Your task to perform on an android device: open a new tab in the chrome app Image 0: 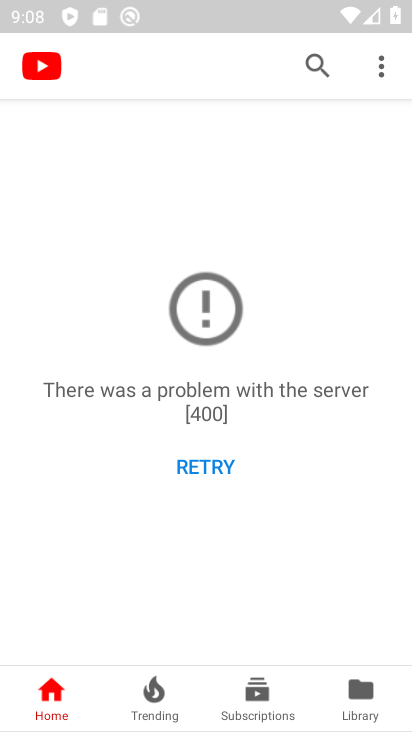
Step 0: press home button
Your task to perform on an android device: open a new tab in the chrome app Image 1: 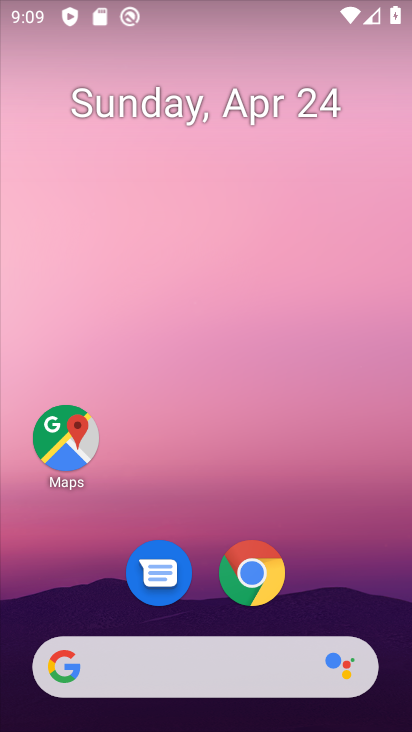
Step 1: drag from (264, 494) to (247, 113)
Your task to perform on an android device: open a new tab in the chrome app Image 2: 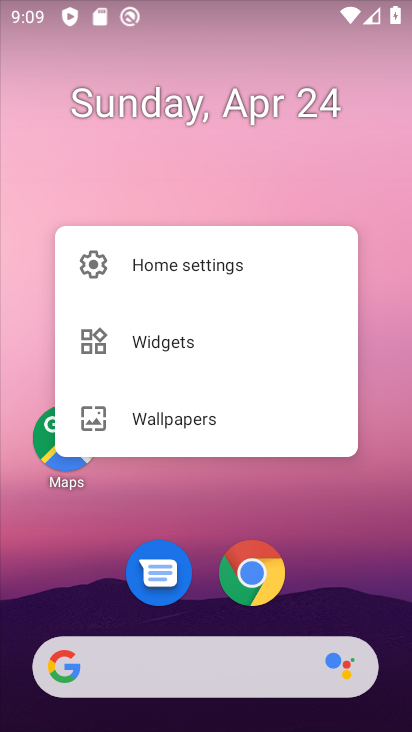
Step 2: drag from (336, 569) to (308, 109)
Your task to perform on an android device: open a new tab in the chrome app Image 3: 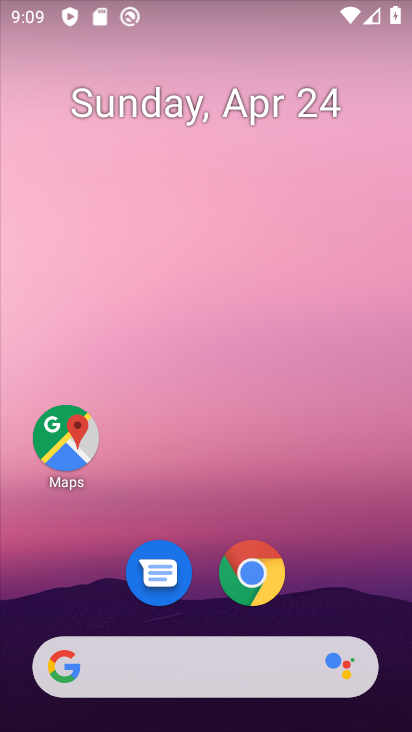
Step 3: drag from (316, 524) to (315, 141)
Your task to perform on an android device: open a new tab in the chrome app Image 4: 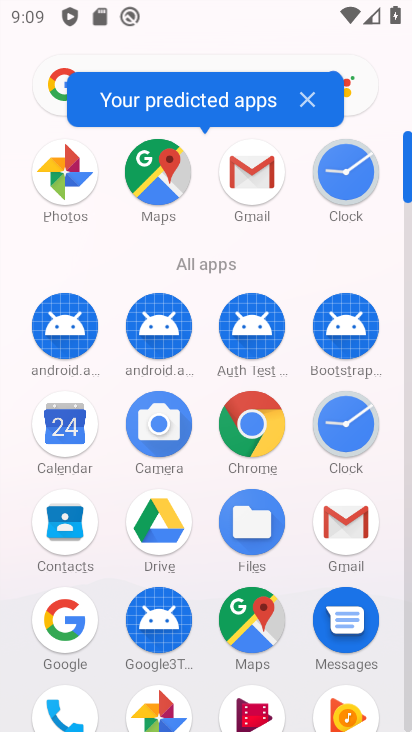
Step 4: click (259, 434)
Your task to perform on an android device: open a new tab in the chrome app Image 5: 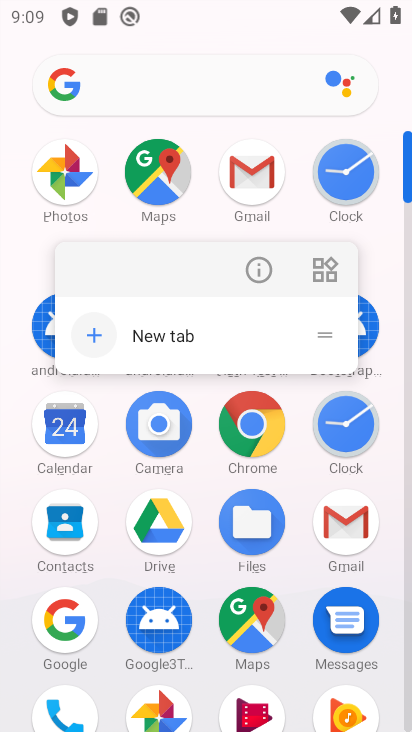
Step 5: click (264, 443)
Your task to perform on an android device: open a new tab in the chrome app Image 6: 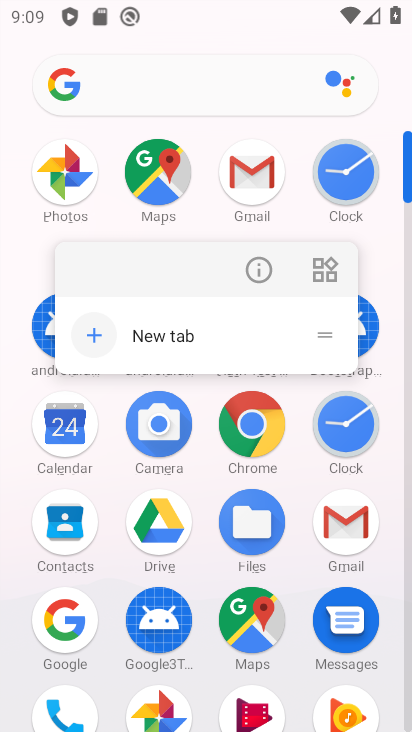
Step 6: click (269, 447)
Your task to perform on an android device: open a new tab in the chrome app Image 7: 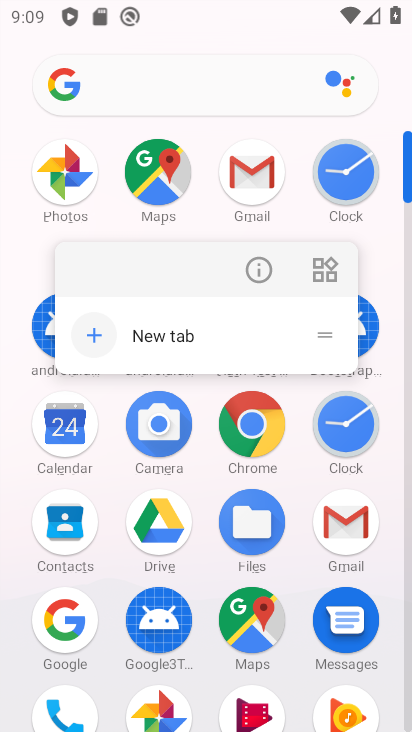
Step 7: click (257, 427)
Your task to perform on an android device: open a new tab in the chrome app Image 8: 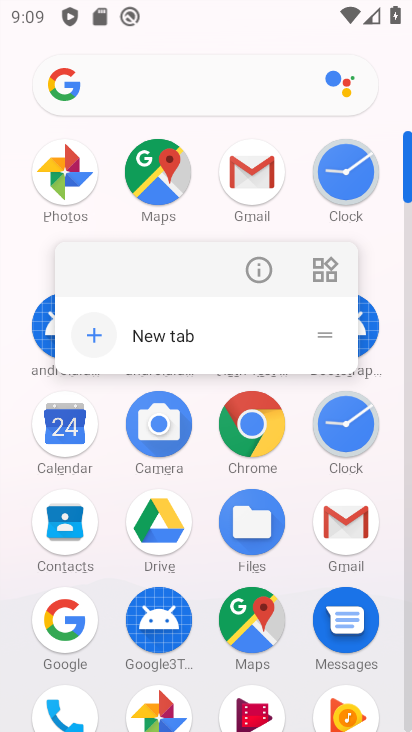
Step 8: click (260, 416)
Your task to perform on an android device: open a new tab in the chrome app Image 9: 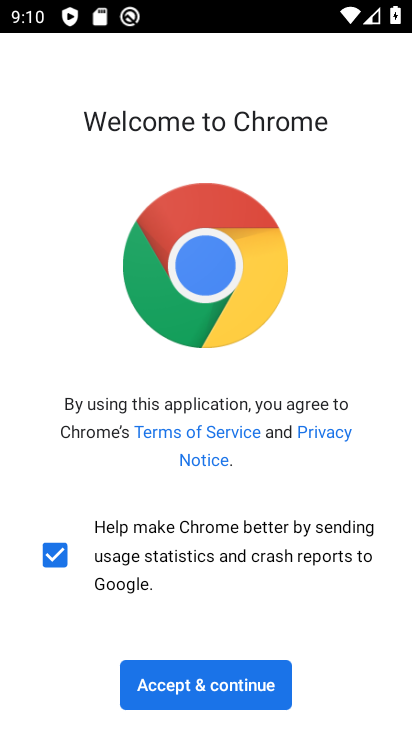
Step 9: click (180, 680)
Your task to perform on an android device: open a new tab in the chrome app Image 10: 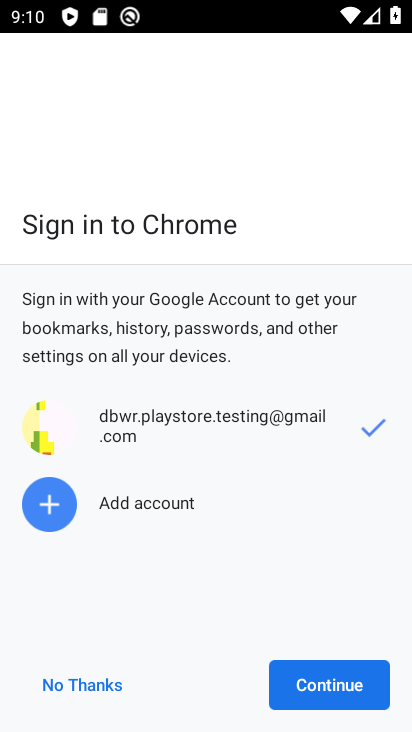
Step 10: click (286, 692)
Your task to perform on an android device: open a new tab in the chrome app Image 11: 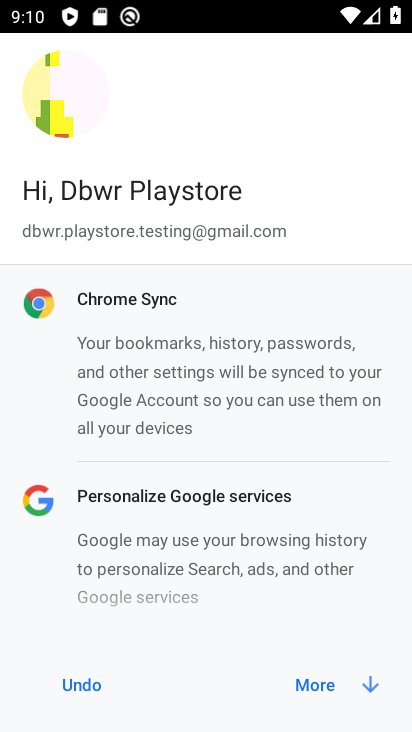
Step 11: click (316, 678)
Your task to perform on an android device: open a new tab in the chrome app Image 12: 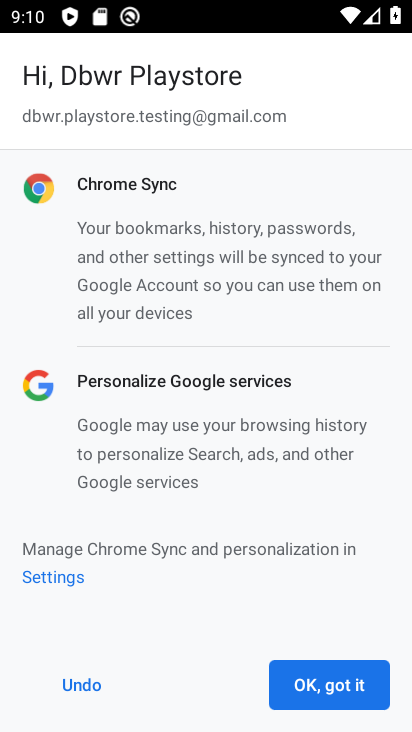
Step 12: click (316, 677)
Your task to perform on an android device: open a new tab in the chrome app Image 13: 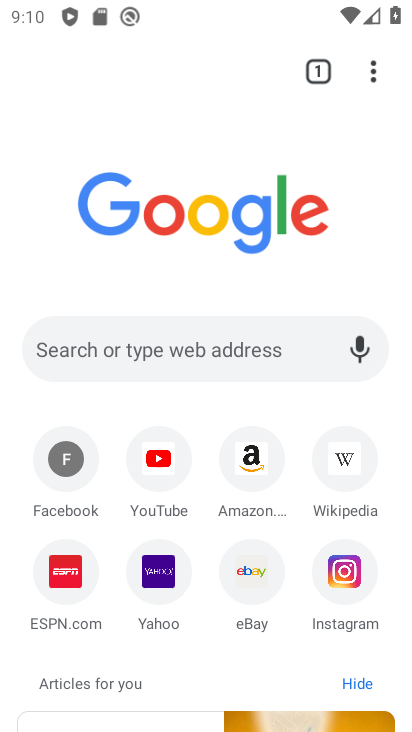
Step 13: task complete